Your task to perform on an android device: Open Youtube and go to the subscriptions tab Image 0: 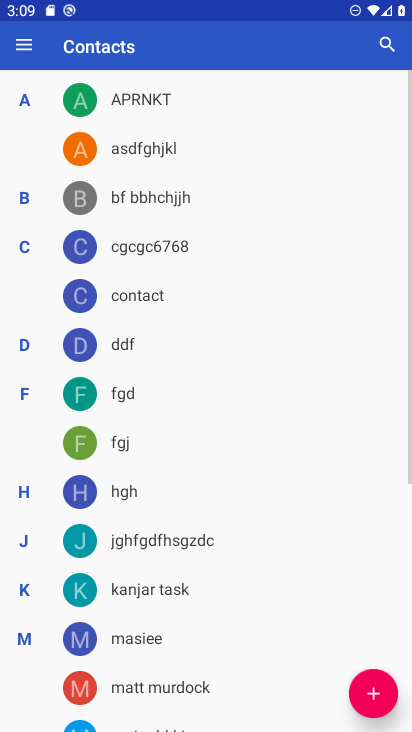
Step 0: press back button
Your task to perform on an android device: Open Youtube and go to the subscriptions tab Image 1: 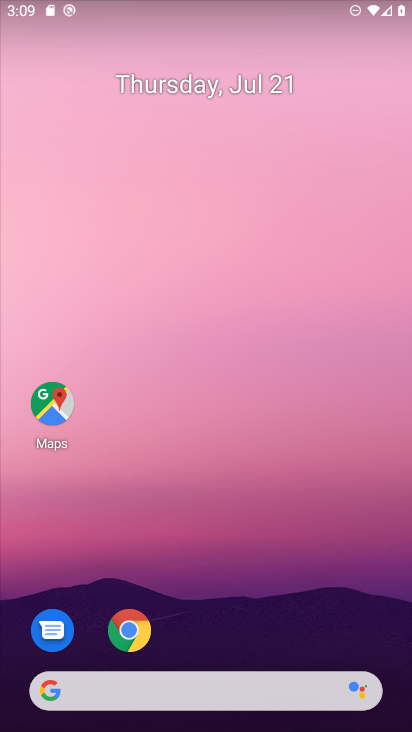
Step 1: drag from (200, 649) to (206, 6)
Your task to perform on an android device: Open Youtube and go to the subscriptions tab Image 2: 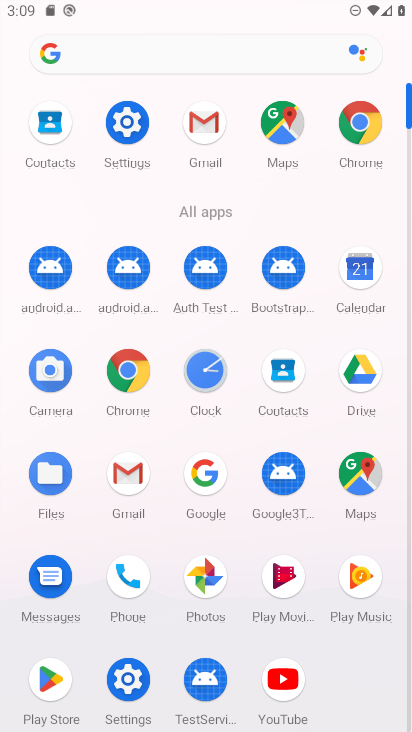
Step 2: click (283, 671)
Your task to perform on an android device: Open Youtube and go to the subscriptions tab Image 3: 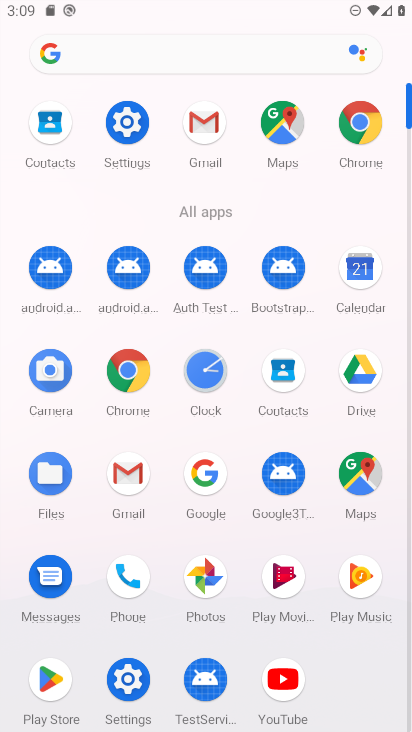
Step 3: click (284, 674)
Your task to perform on an android device: Open Youtube and go to the subscriptions tab Image 4: 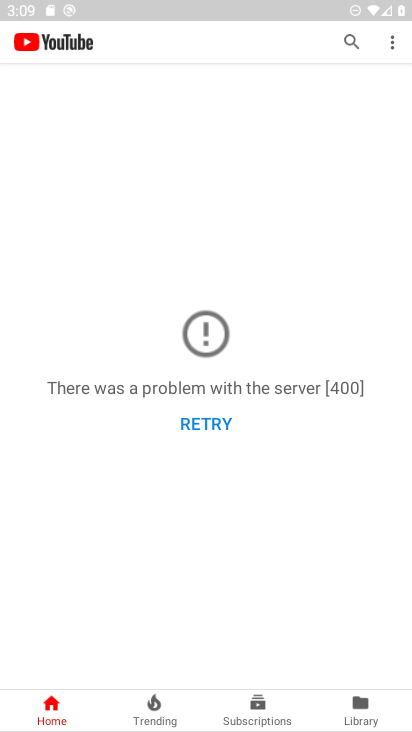
Step 4: click (248, 717)
Your task to perform on an android device: Open Youtube and go to the subscriptions tab Image 5: 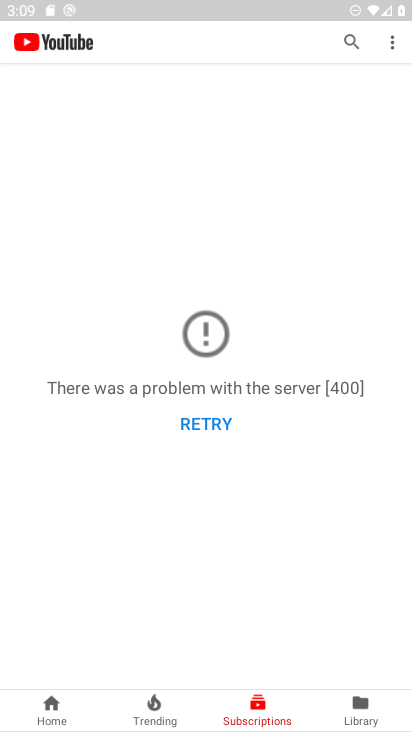
Step 5: task complete